Your task to perform on an android device: change timer sound Image 0: 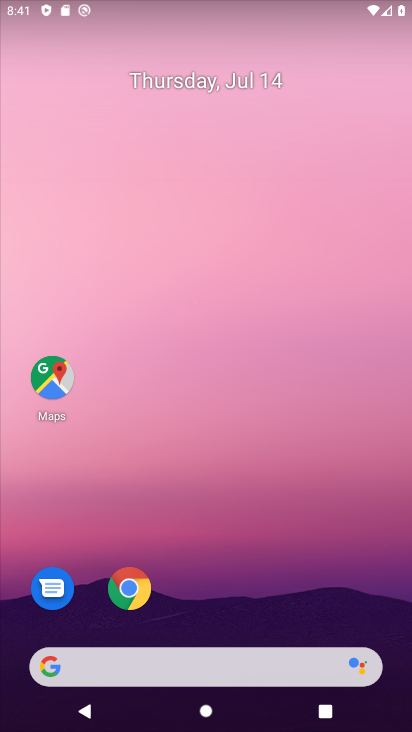
Step 0: drag from (225, 602) to (237, 125)
Your task to perform on an android device: change timer sound Image 1: 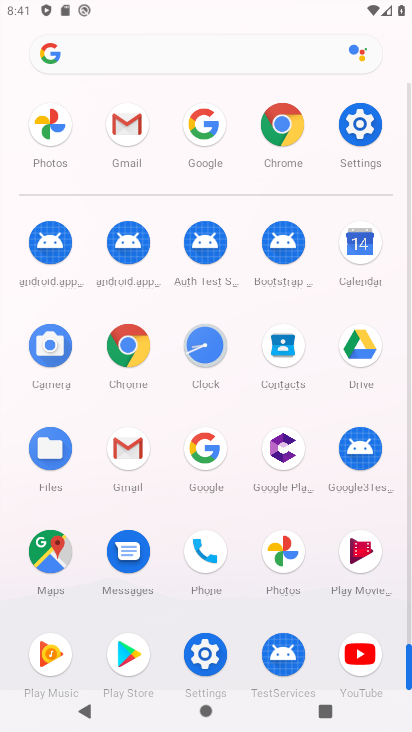
Step 1: click (207, 346)
Your task to perform on an android device: change timer sound Image 2: 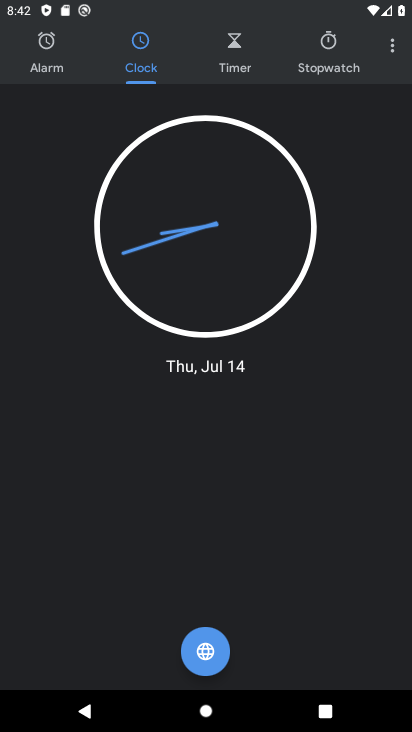
Step 2: click (387, 47)
Your task to perform on an android device: change timer sound Image 3: 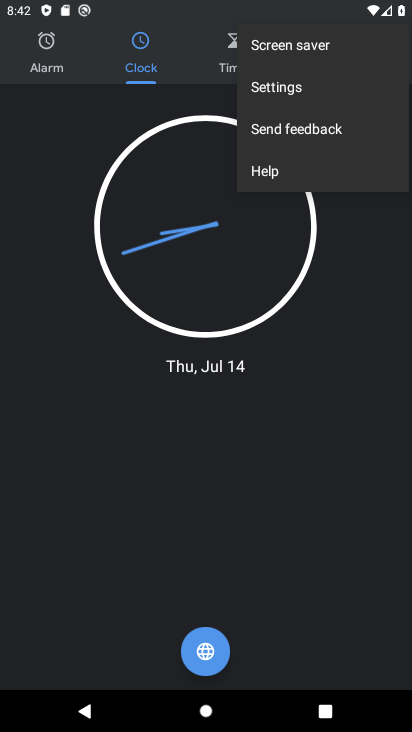
Step 3: click (292, 93)
Your task to perform on an android device: change timer sound Image 4: 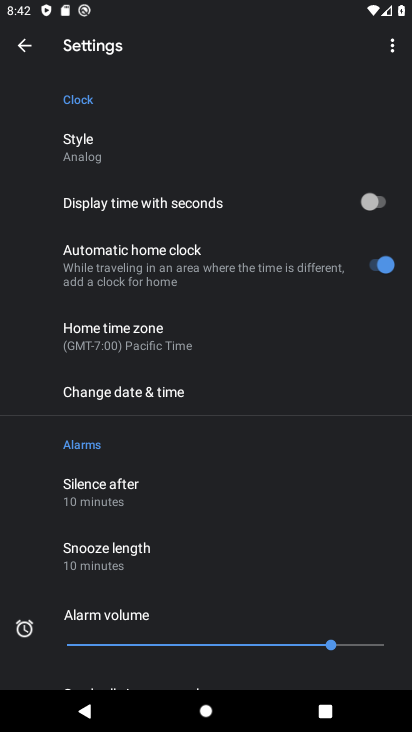
Step 4: drag from (136, 571) to (126, 99)
Your task to perform on an android device: change timer sound Image 5: 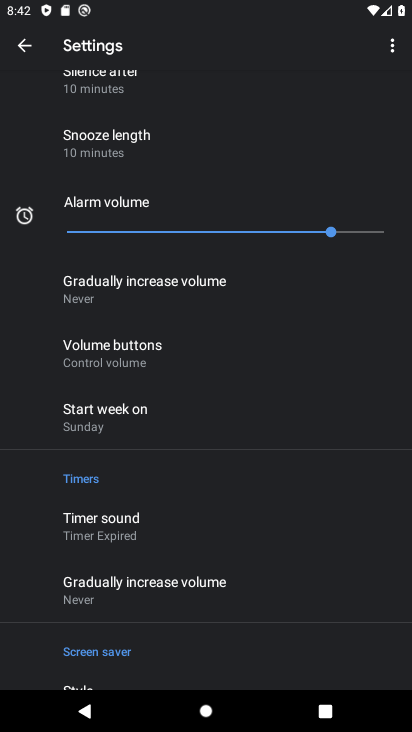
Step 5: click (136, 526)
Your task to perform on an android device: change timer sound Image 6: 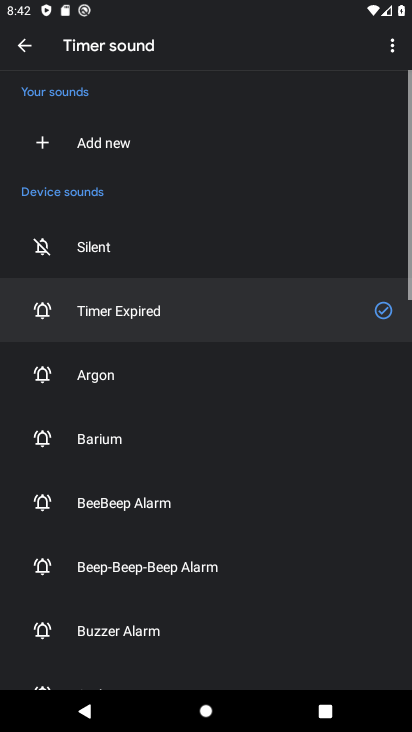
Step 6: click (133, 378)
Your task to perform on an android device: change timer sound Image 7: 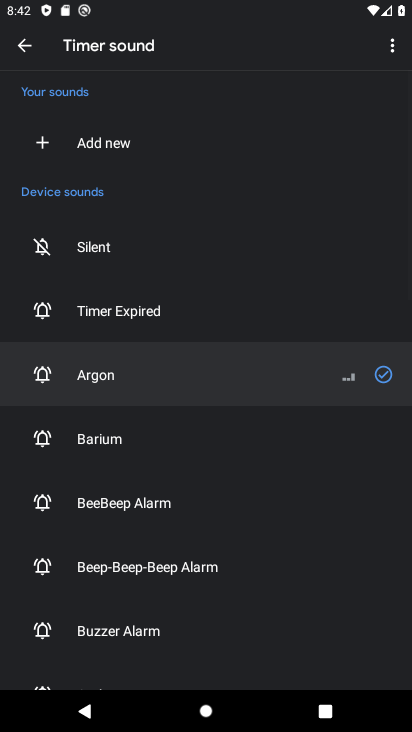
Step 7: task complete